Your task to perform on an android device: Set the phone to "Do not disturb". Image 0: 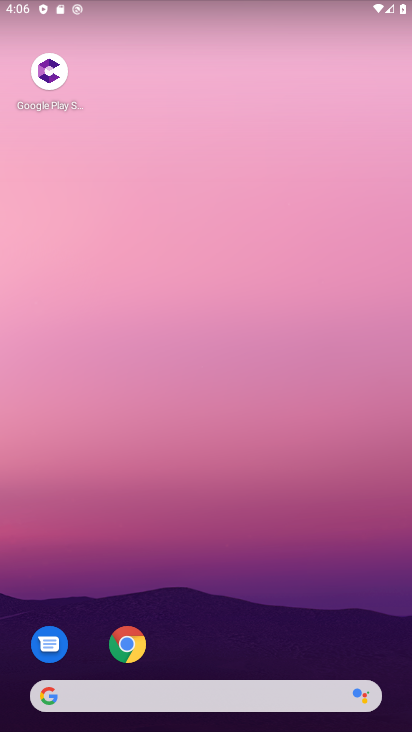
Step 0: drag from (184, 9) to (79, 525)
Your task to perform on an android device: Set the phone to "Do not disturb". Image 1: 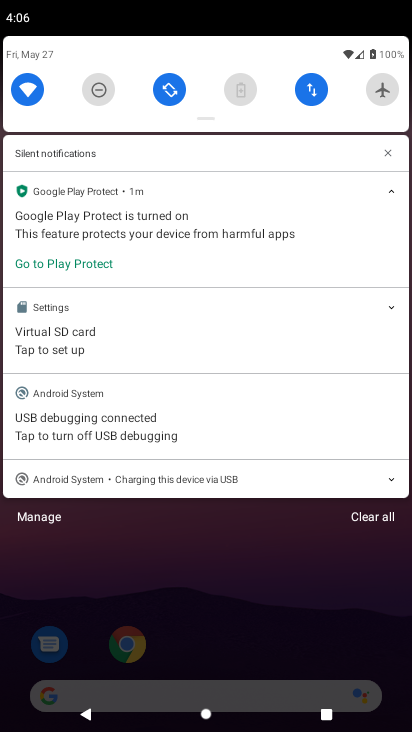
Step 1: click (98, 84)
Your task to perform on an android device: Set the phone to "Do not disturb". Image 2: 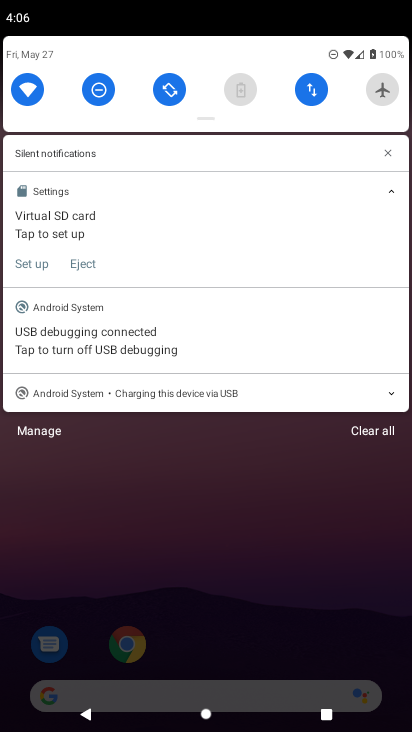
Step 2: task complete